Your task to perform on an android device: View the shopping cart on costco.com. Add energizer triple a to the cart on costco.com, then select checkout. Image 0: 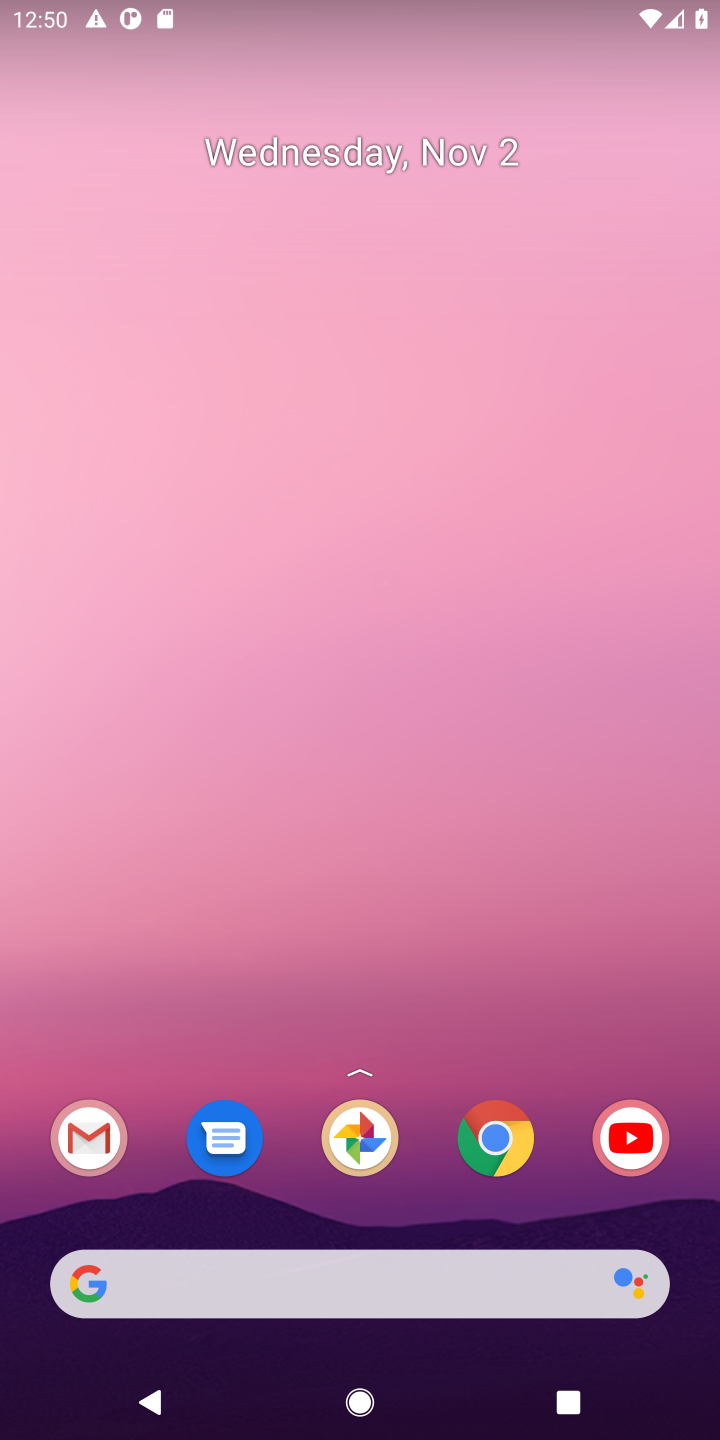
Step 0: click (505, 1135)
Your task to perform on an android device: View the shopping cart on costco.com. Add energizer triple a to the cart on costco.com, then select checkout. Image 1: 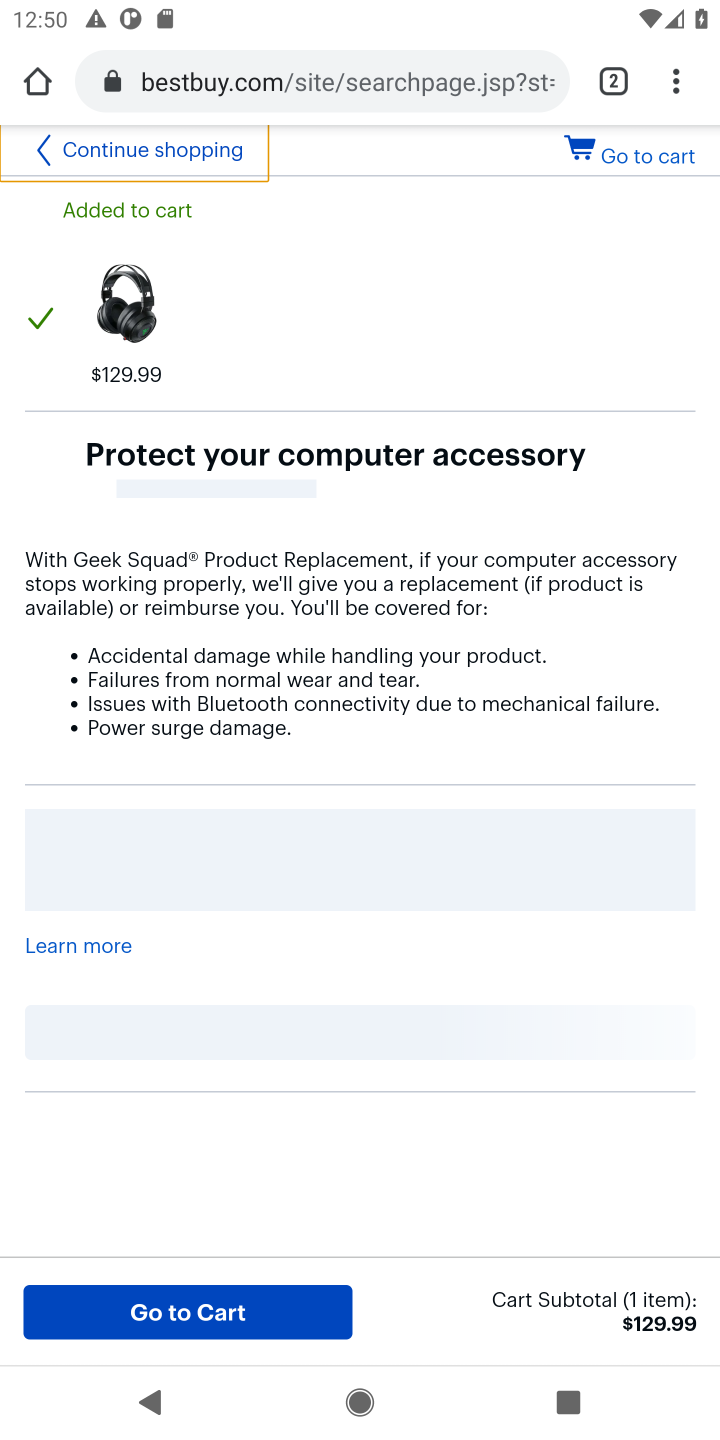
Step 1: click (616, 94)
Your task to perform on an android device: View the shopping cart on costco.com. Add energizer triple a to the cart on costco.com, then select checkout. Image 2: 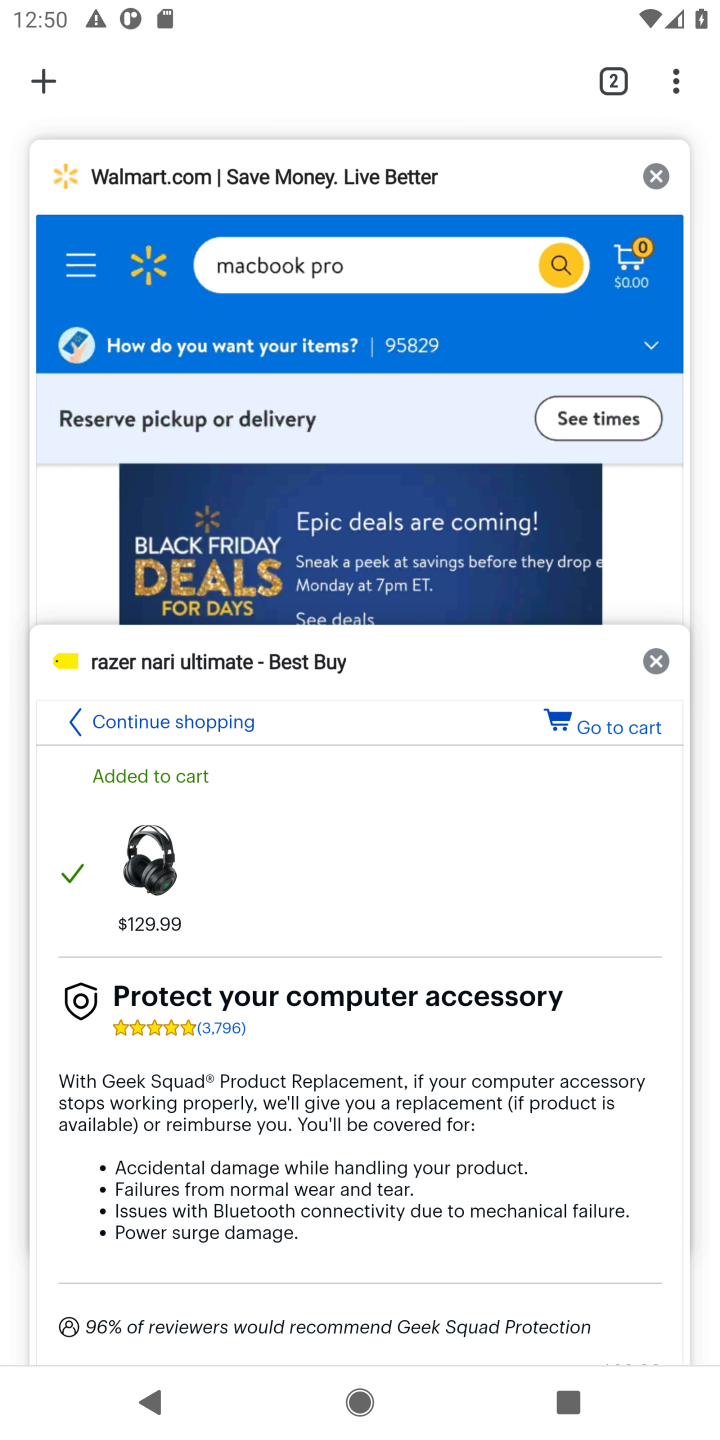
Step 2: click (30, 88)
Your task to perform on an android device: View the shopping cart on costco.com. Add energizer triple a to the cart on costco.com, then select checkout. Image 3: 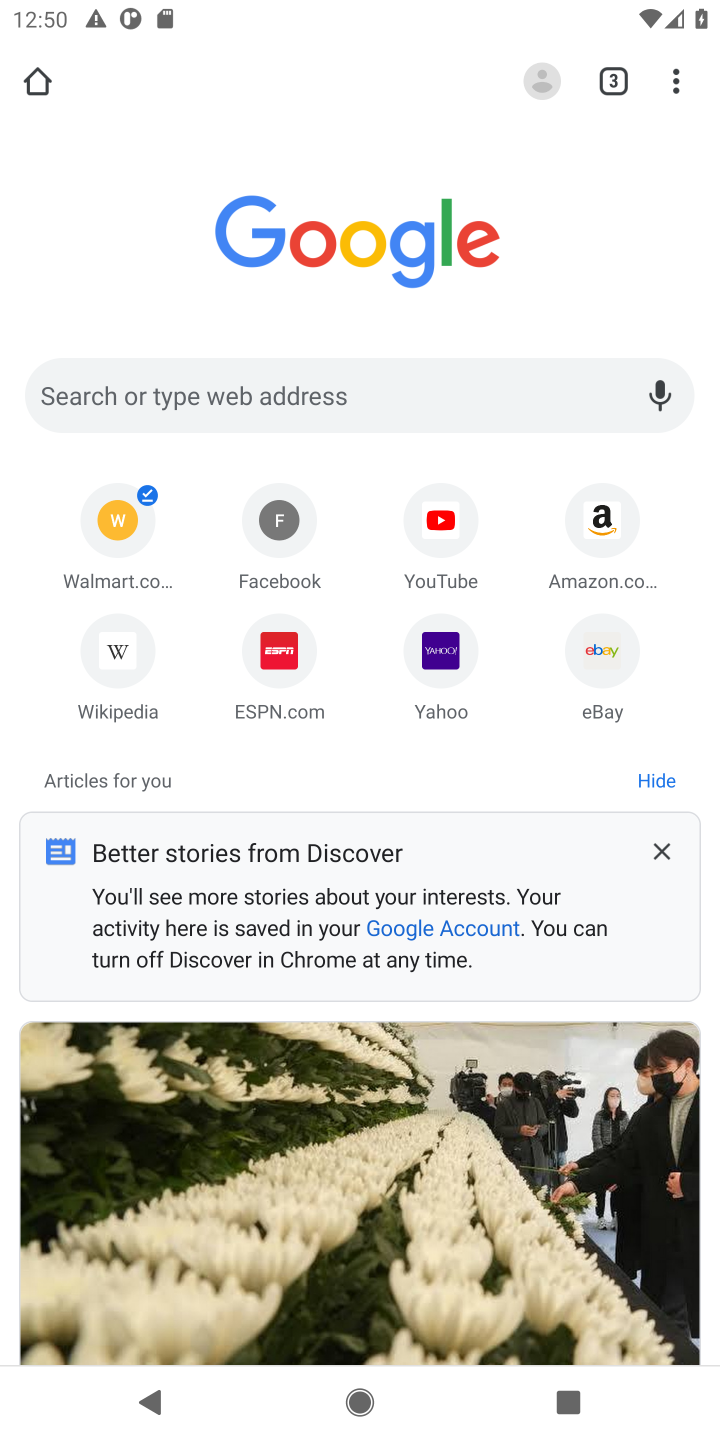
Step 3: click (190, 383)
Your task to perform on an android device: View the shopping cart on costco.com. Add energizer triple a to the cart on costco.com, then select checkout. Image 4: 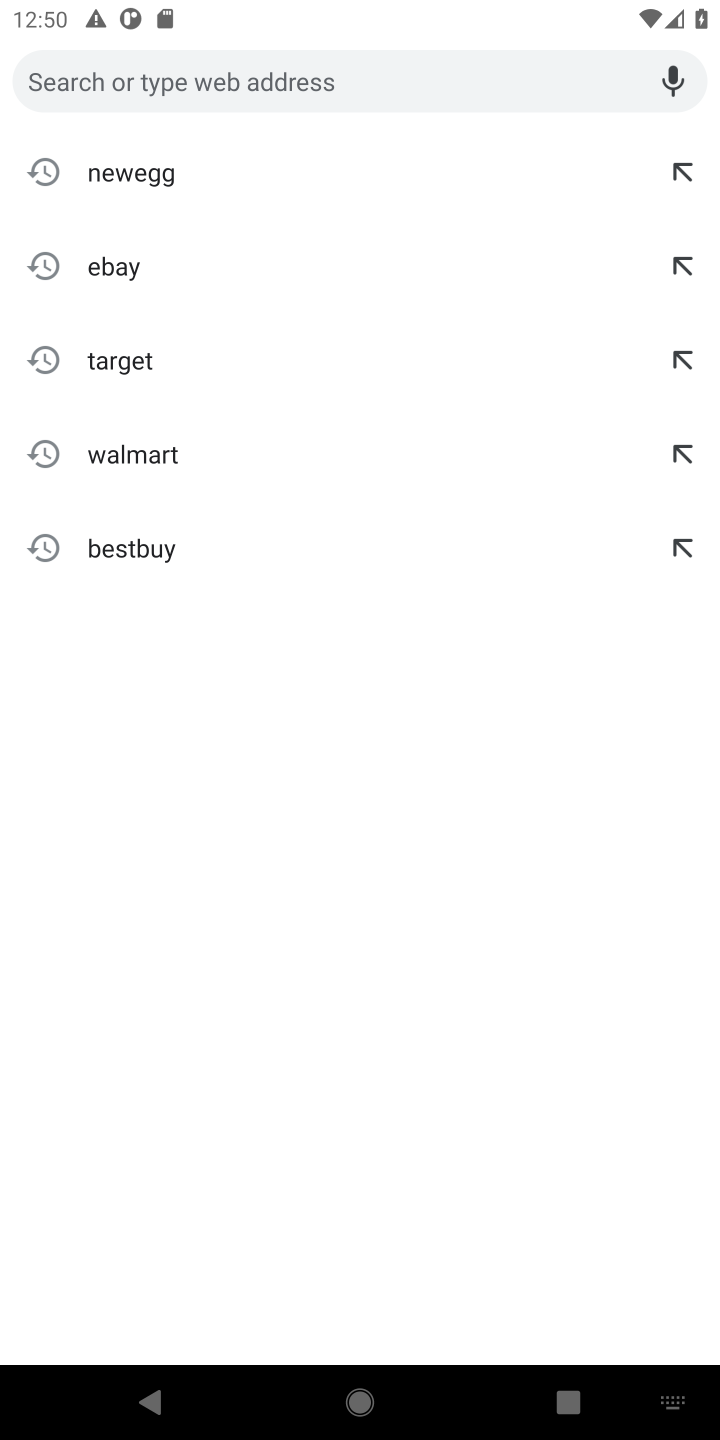
Step 4: type "costco"
Your task to perform on an android device: View the shopping cart on costco.com. Add energizer triple a to the cart on costco.com, then select checkout. Image 5: 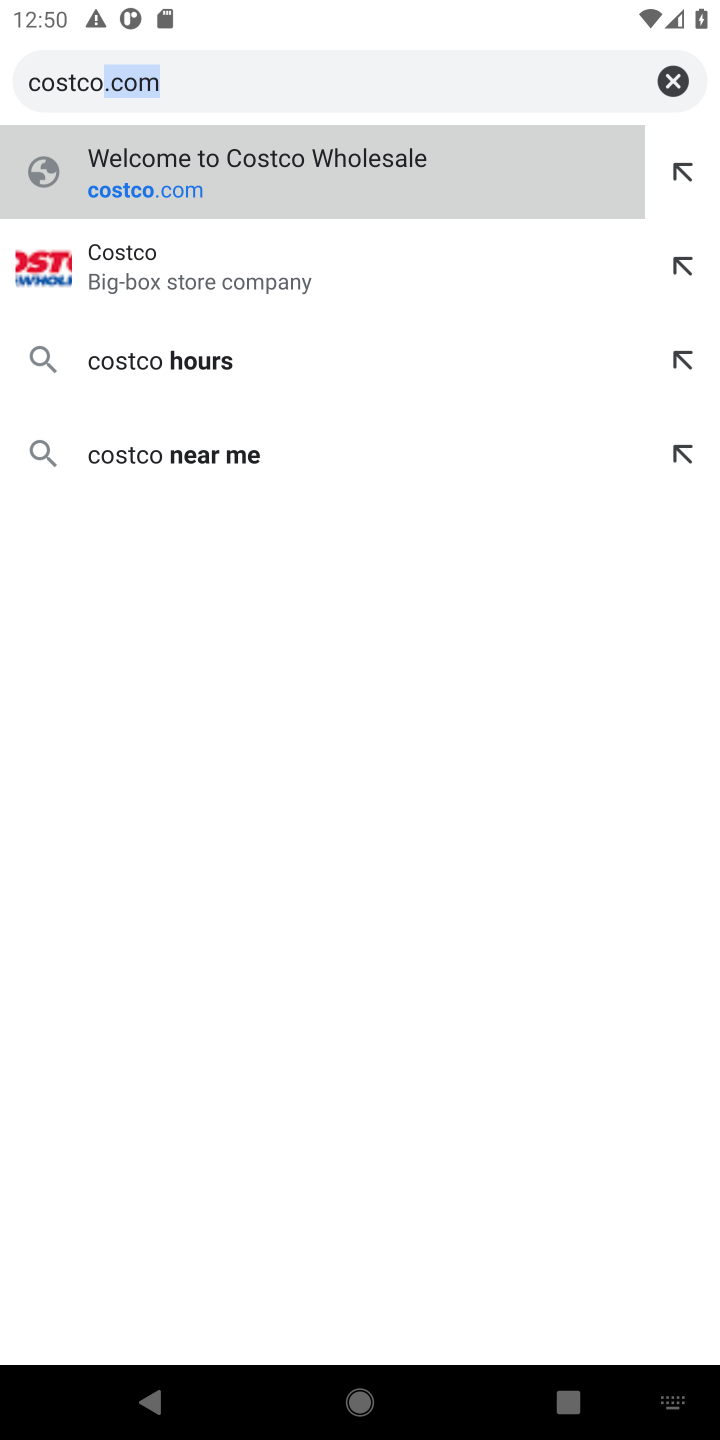
Step 5: click (172, 195)
Your task to perform on an android device: View the shopping cart on costco.com. Add energizer triple a to the cart on costco.com, then select checkout. Image 6: 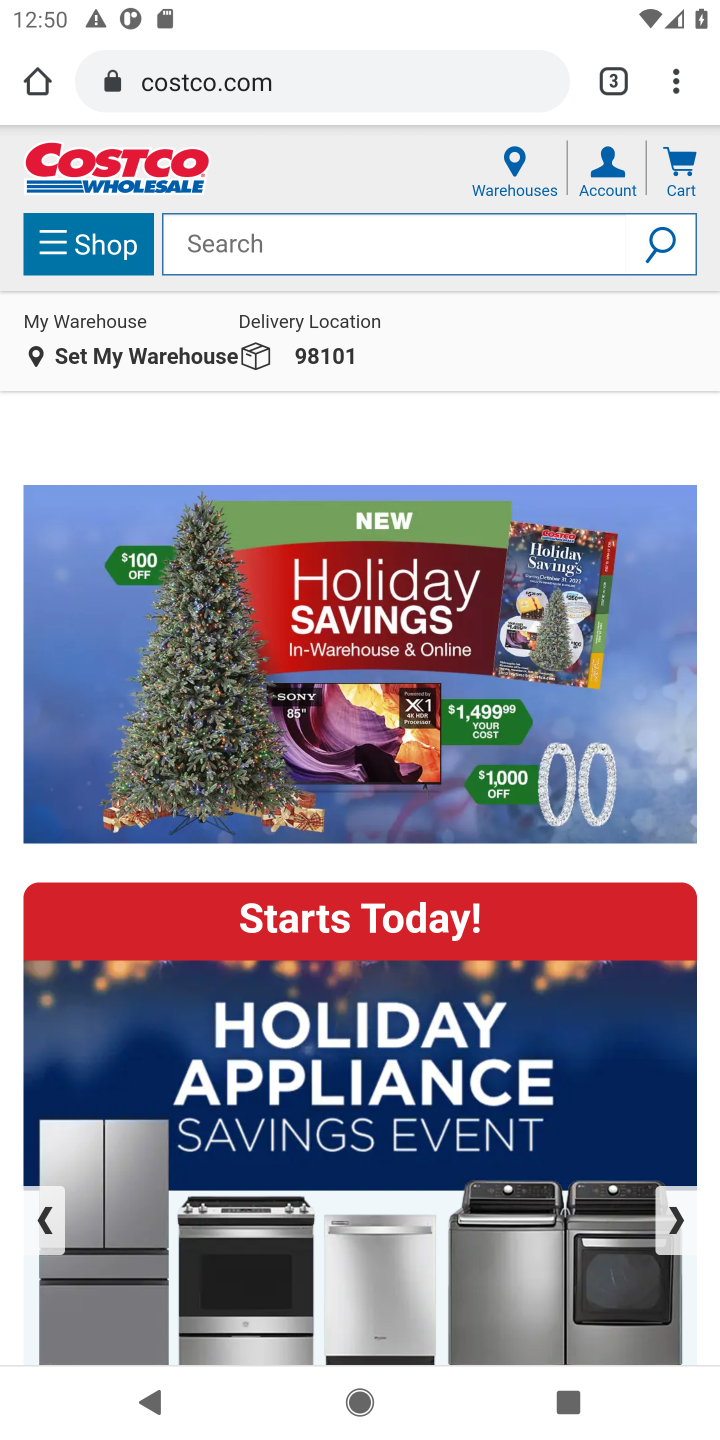
Step 6: click (215, 248)
Your task to perform on an android device: View the shopping cart on costco.com. Add energizer triple a to the cart on costco.com, then select checkout. Image 7: 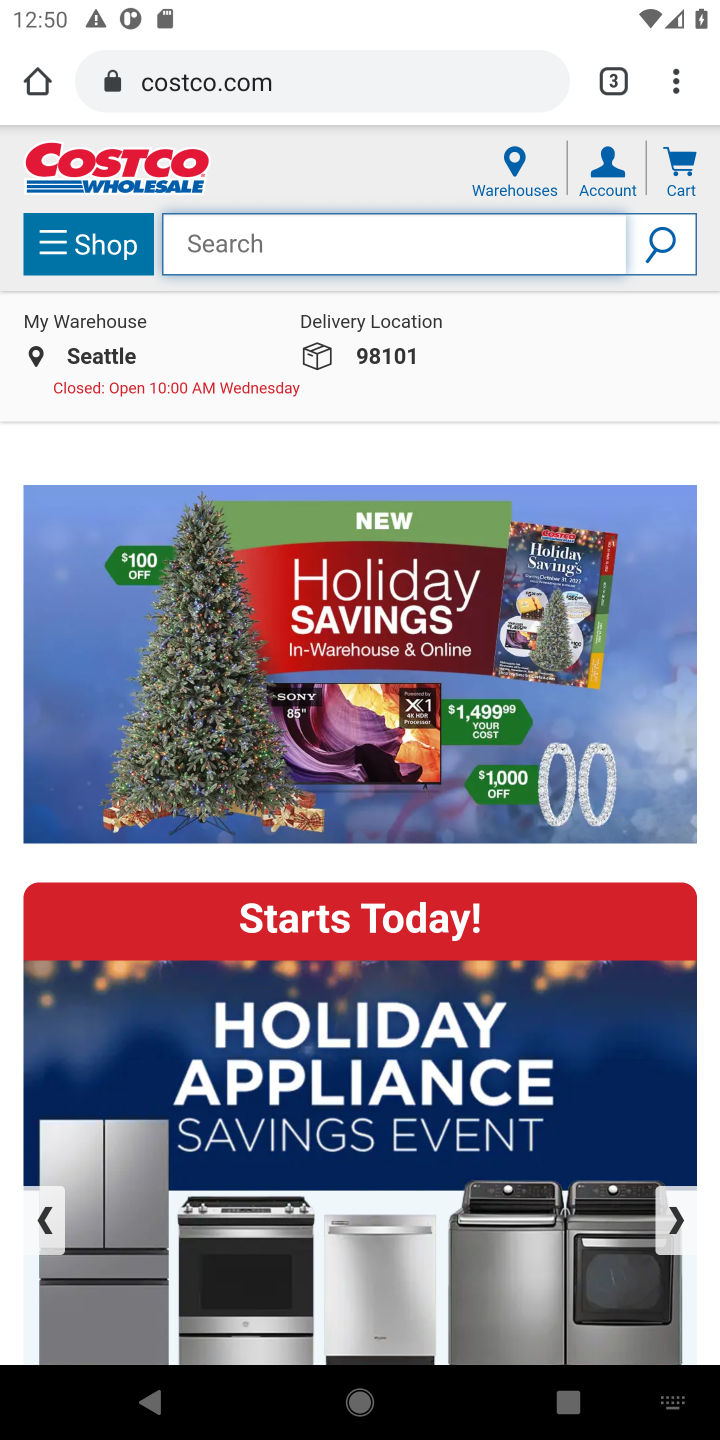
Step 7: type "energizer triple a "
Your task to perform on an android device: View the shopping cart on costco.com. Add energizer triple a to the cart on costco.com, then select checkout. Image 8: 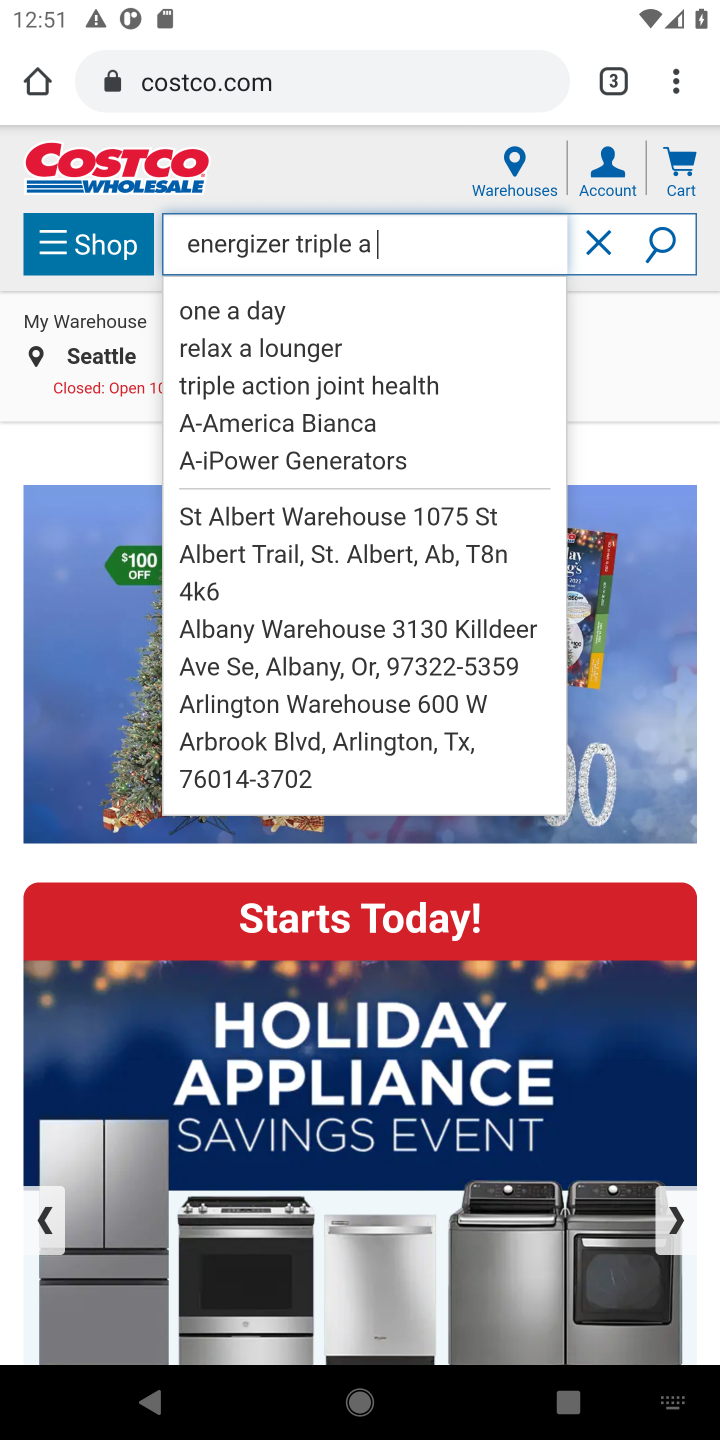
Step 8: click (647, 243)
Your task to perform on an android device: View the shopping cart on costco.com. Add energizer triple a to the cart on costco.com, then select checkout. Image 9: 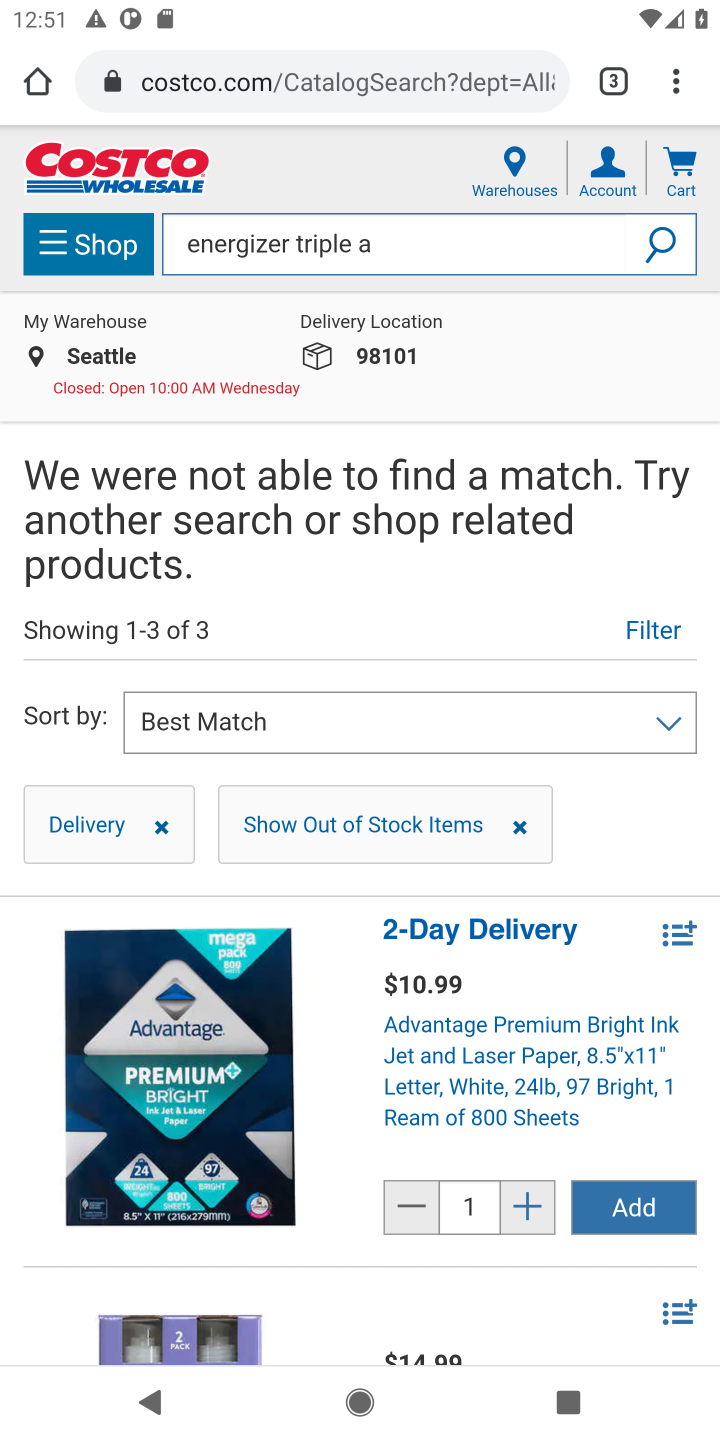
Step 9: click (636, 1202)
Your task to perform on an android device: View the shopping cart on costco.com. Add energizer triple a to the cart on costco.com, then select checkout. Image 10: 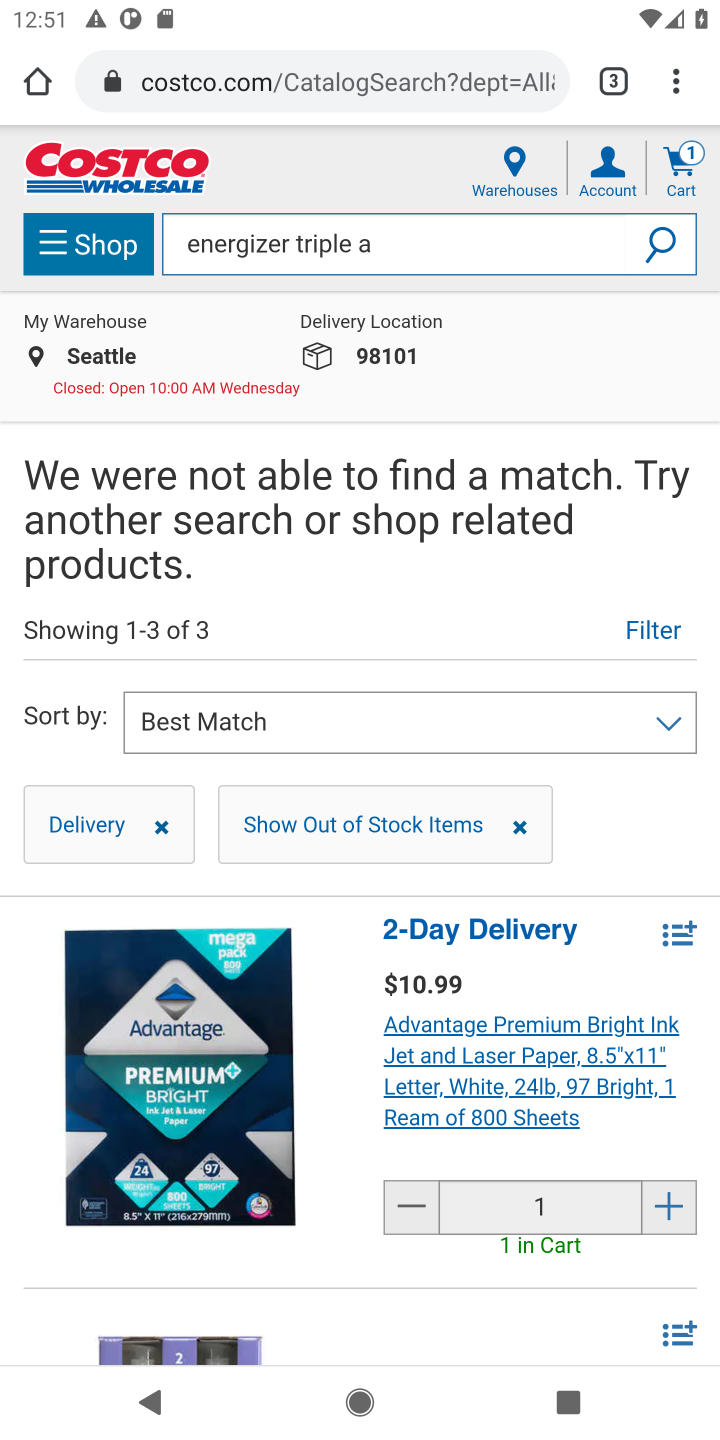
Step 10: task complete